Your task to perform on an android device: set the stopwatch Image 0: 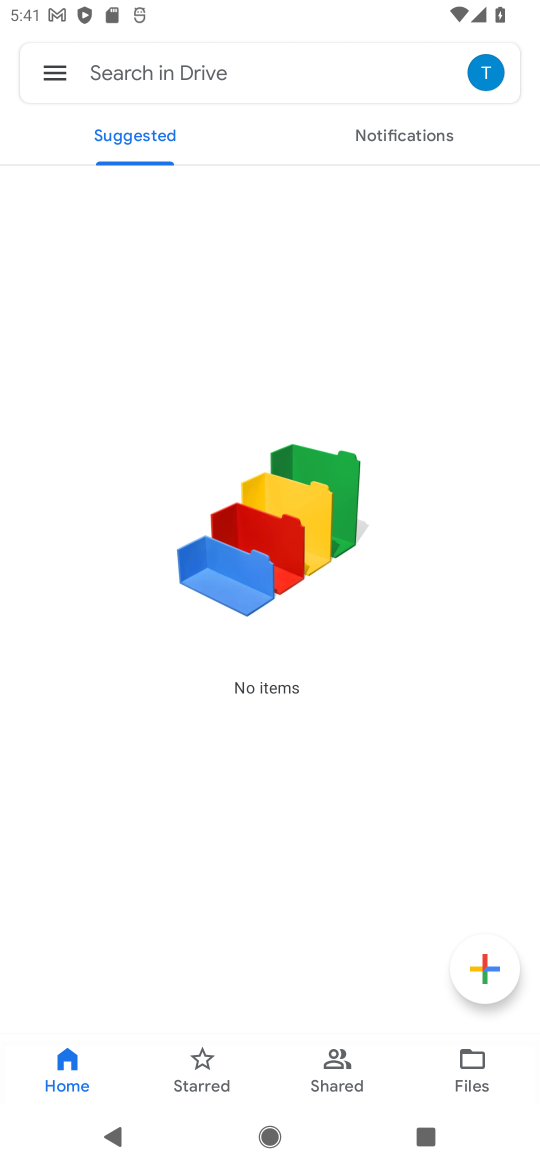
Step 0: press home button
Your task to perform on an android device: set the stopwatch Image 1: 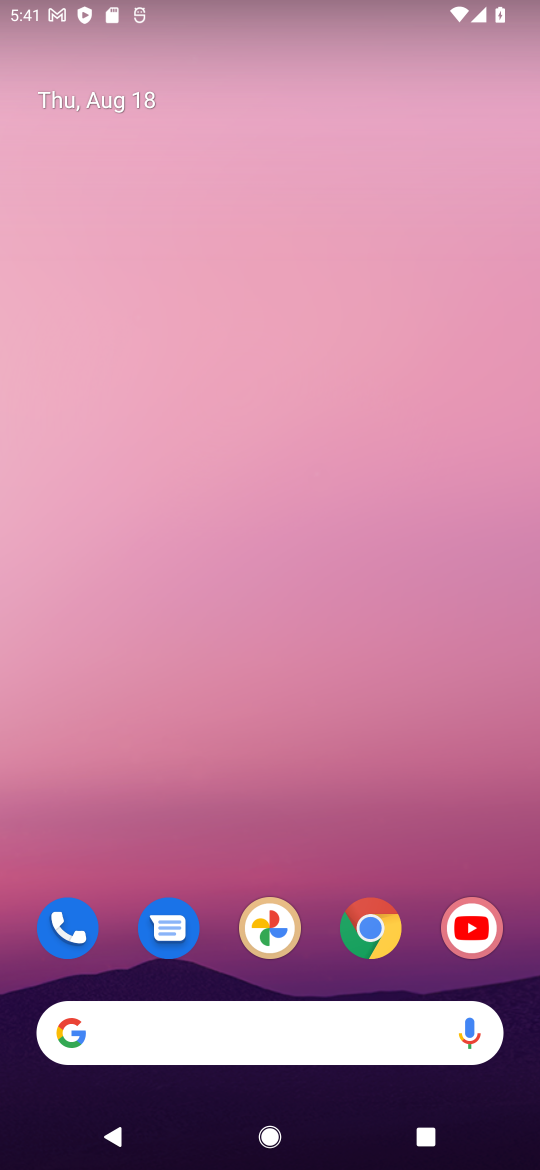
Step 1: drag from (325, 848) to (387, 167)
Your task to perform on an android device: set the stopwatch Image 2: 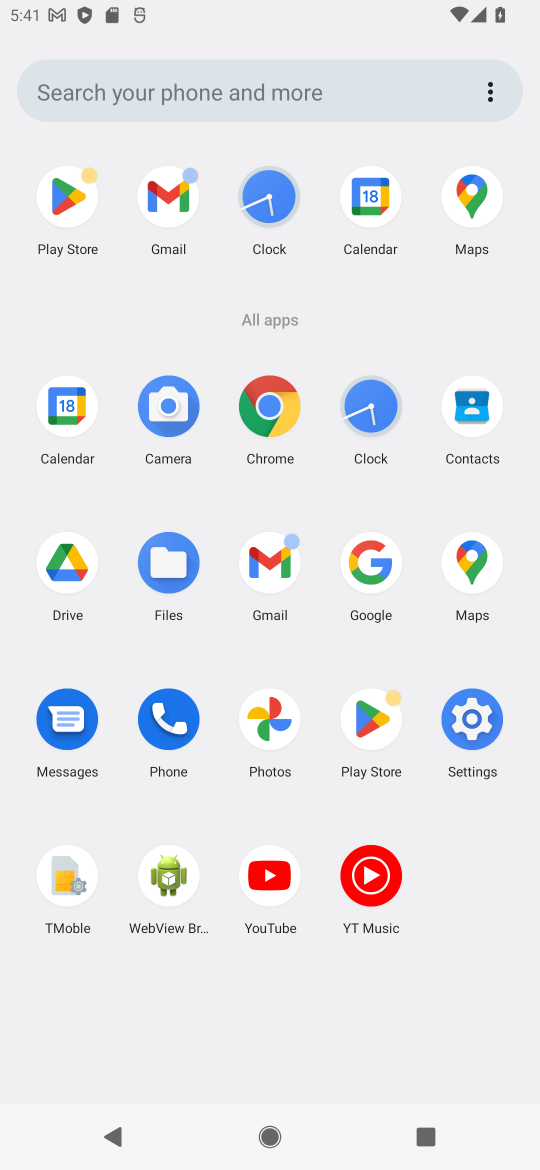
Step 2: click (356, 402)
Your task to perform on an android device: set the stopwatch Image 3: 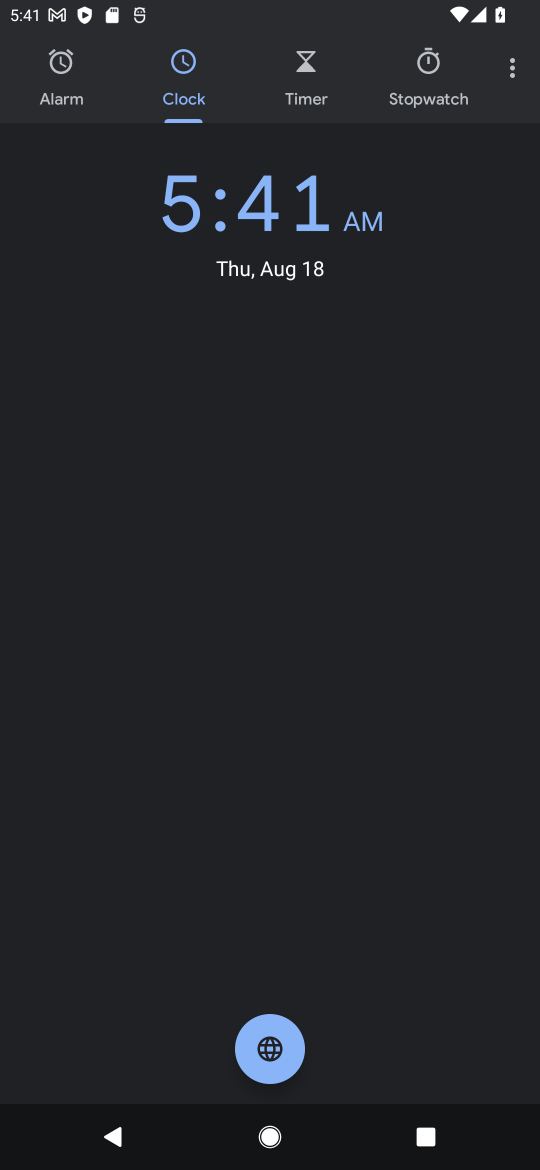
Step 3: click (412, 63)
Your task to perform on an android device: set the stopwatch Image 4: 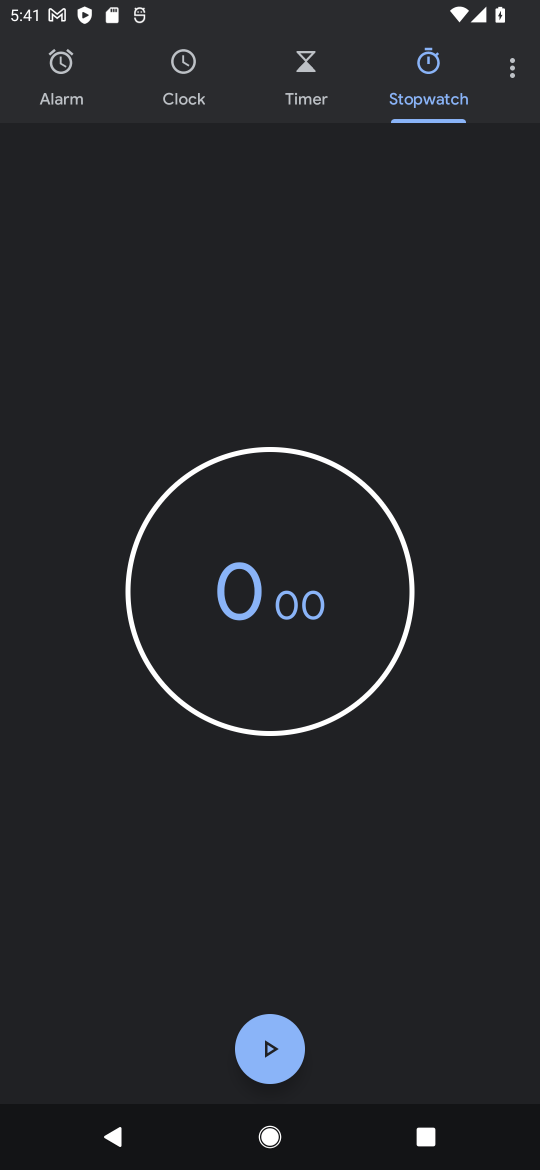
Step 4: click (268, 1057)
Your task to perform on an android device: set the stopwatch Image 5: 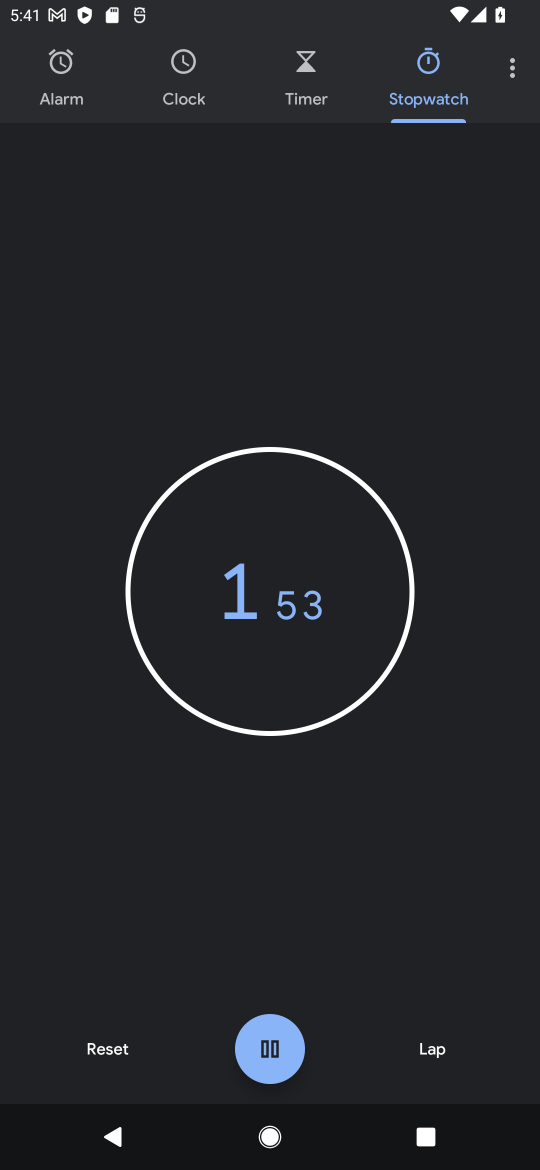
Step 5: click (271, 1045)
Your task to perform on an android device: set the stopwatch Image 6: 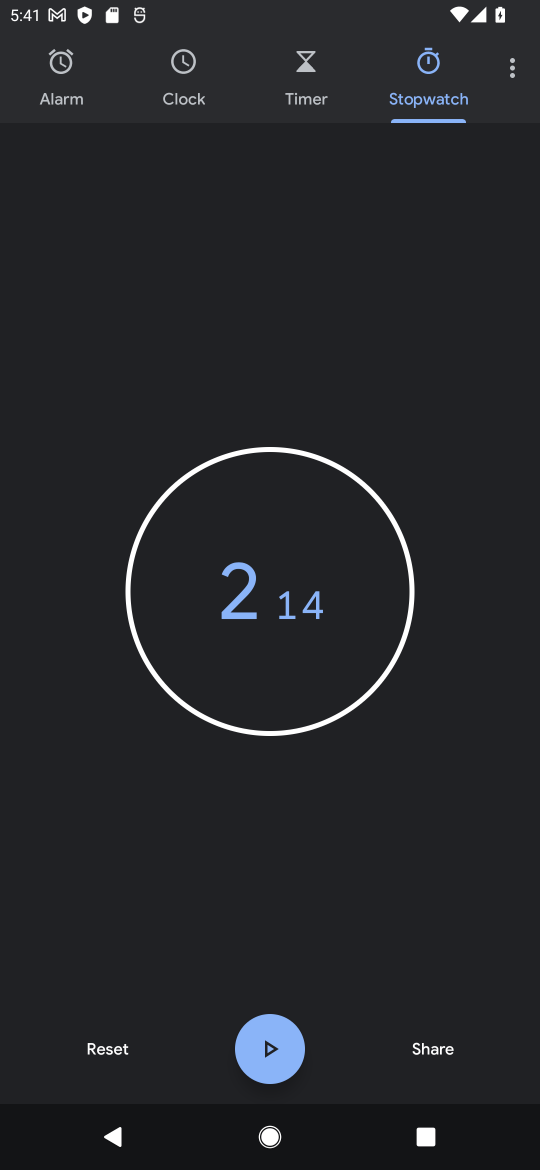
Step 6: task complete